Your task to perform on an android device: Open privacy settings Image 0: 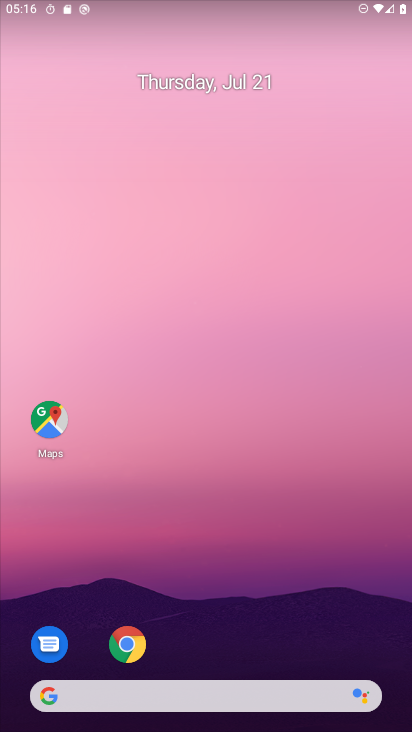
Step 0: drag from (190, 506) to (221, 148)
Your task to perform on an android device: Open privacy settings Image 1: 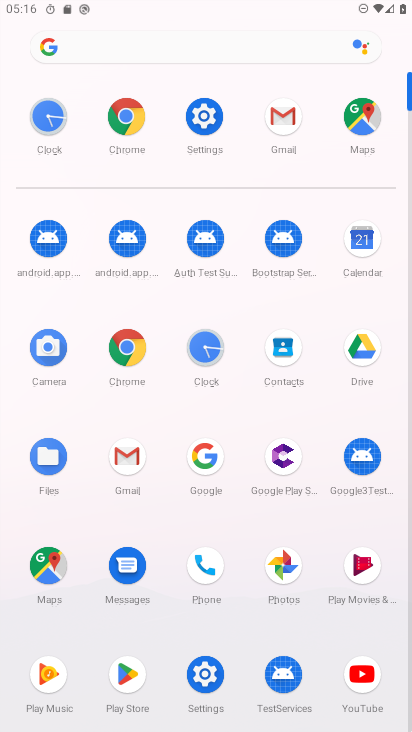
Step 1: click (203, 118)
Your task to perform on an android device: Open privacy settings Image 2: 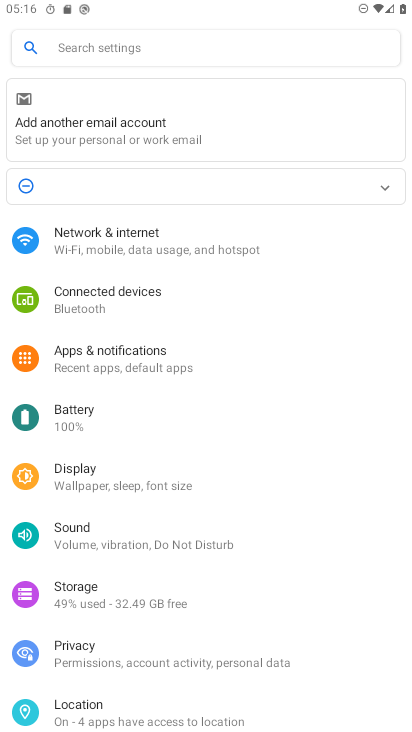
Step 2: click (61, 665)
Your task to perform on an android device: Open privacy settings Image 3: 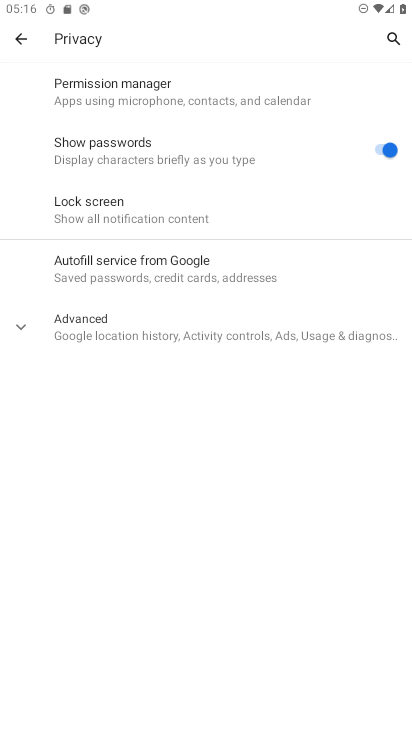
Step 3: task complete